Your task to perform on an android device: clear all cookies in the chrome app Image 0: 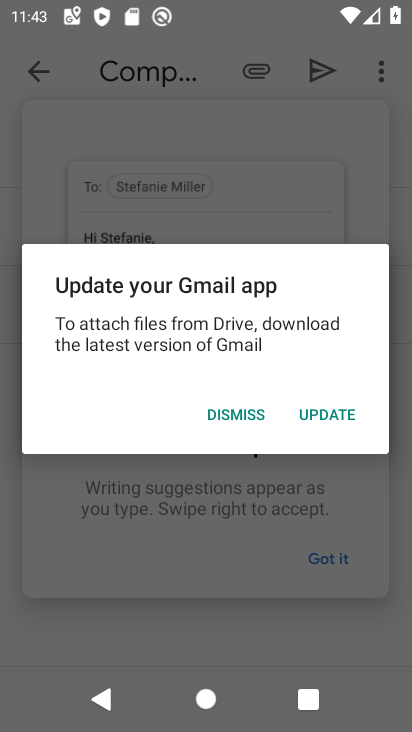
Step 0: press home button
Your task to perform on an android device: clear all cookies in the chrome app Image 1: 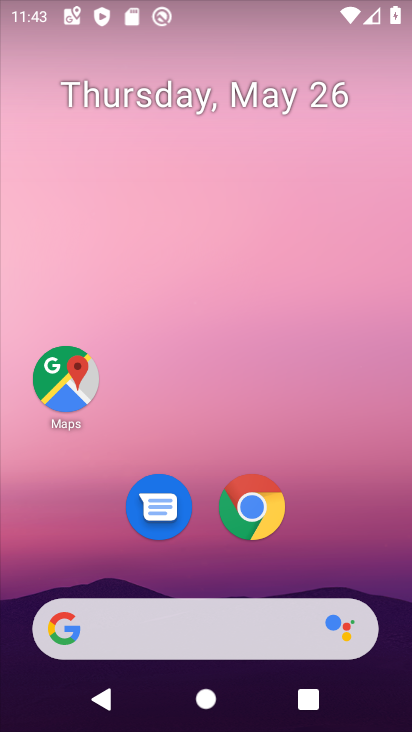
Step 1: click (249, 506)
Your task to perform on an android device: clear all cookies in the chrome app Image 2: 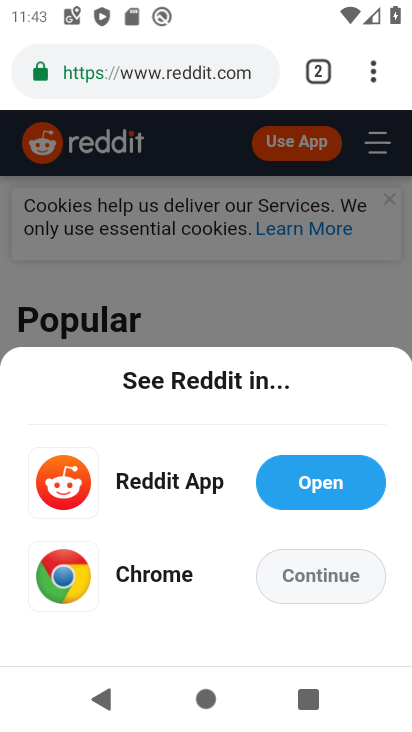
Step 2: drag from (378, 66) to (159, 518)
Your task to perform on an android device: clear all cookies in the chrome app Image 3: 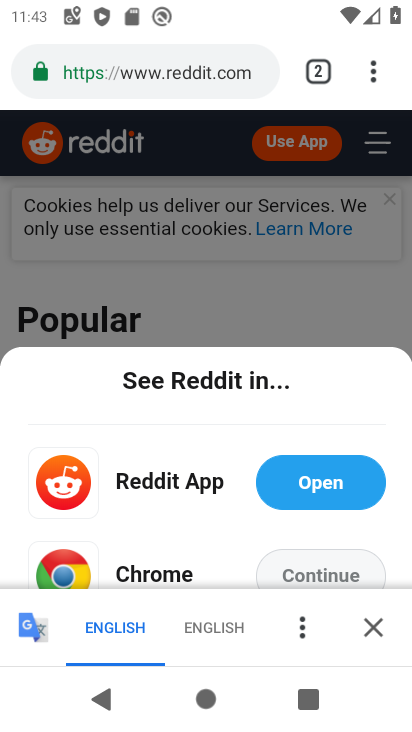
Step 3: drag from (383, 63) to (120, 411)
Your task to perform on an android device: clear all cookies in the chrome app Image 4: 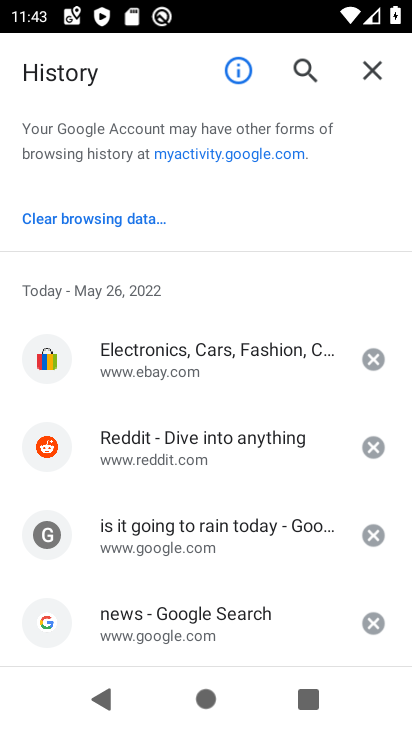
Step 4: click (120, 220)
Your task to perform on an android device: clear all cookies in the chrome app Image 5: 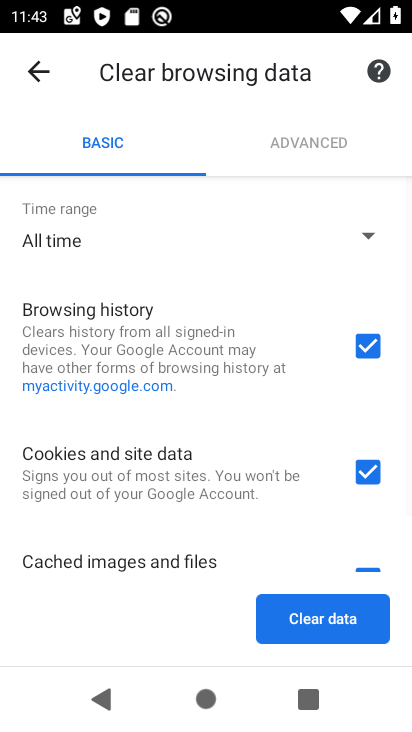
Step 5: click (356, 619)
Your task to perform on an android device: clear all cookies in the chrome app Image 6: 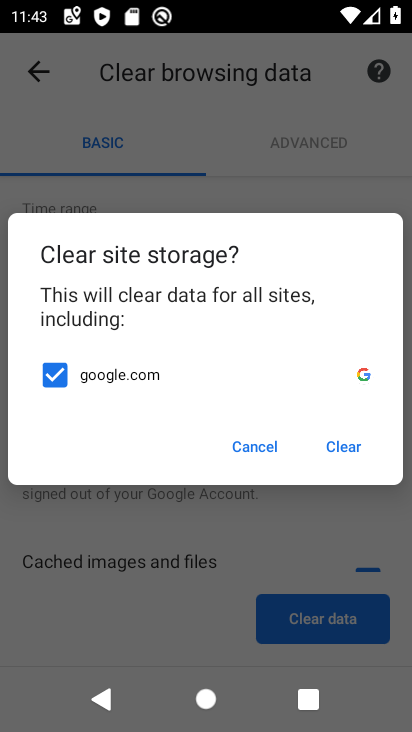
Step 6: click (347, 447)
Your task to perform on an android device: clear all cookies in the chrome app Image 7: 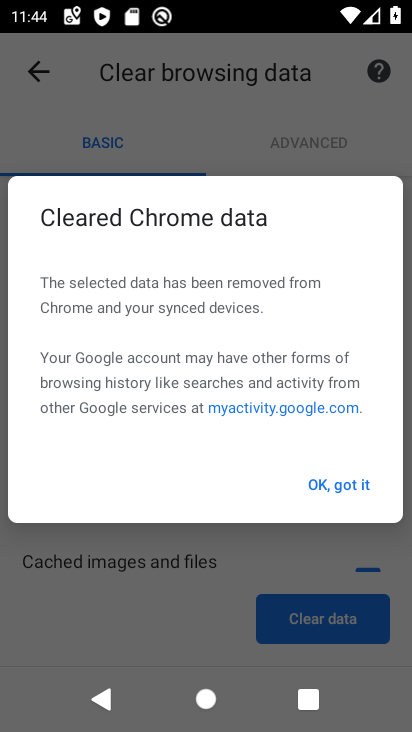
Step 7: task complete